Your task to perform on an android device: turn off location history Image 0: 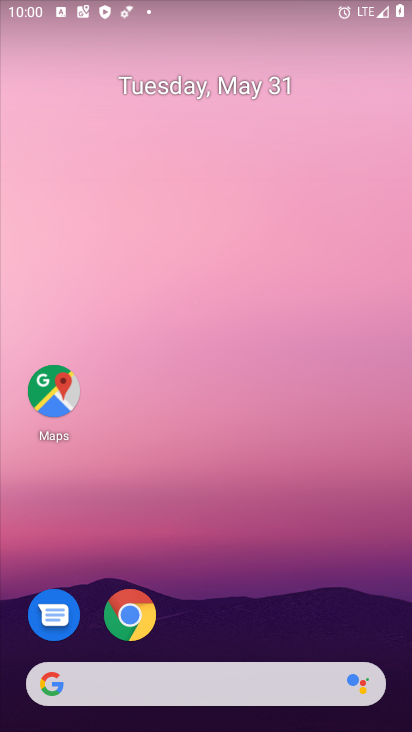
Step 0: click (52, 395)
Your task to perform on an android device: turn off location history Image 1: 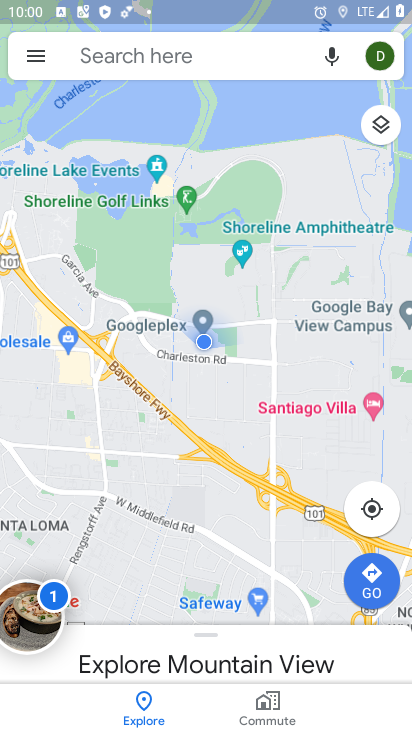
Step 1: click (33, 56)
Your task to perform on an android device: turn off location history Image 2: 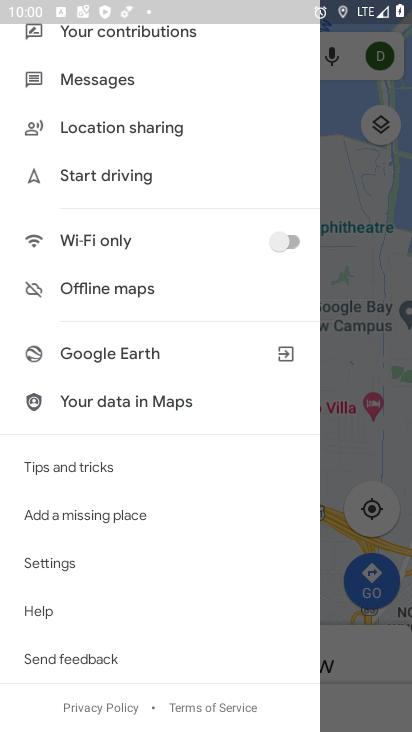
Step 2: click (48, 555)
Your task to perform on an android device: turn off location history Image 3: 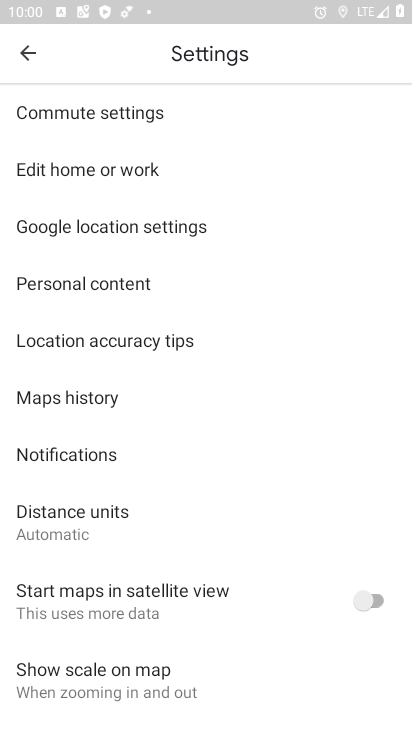
Step 3: click (87, 282)
Your task to perform on an android device: turn off location history Image 4: 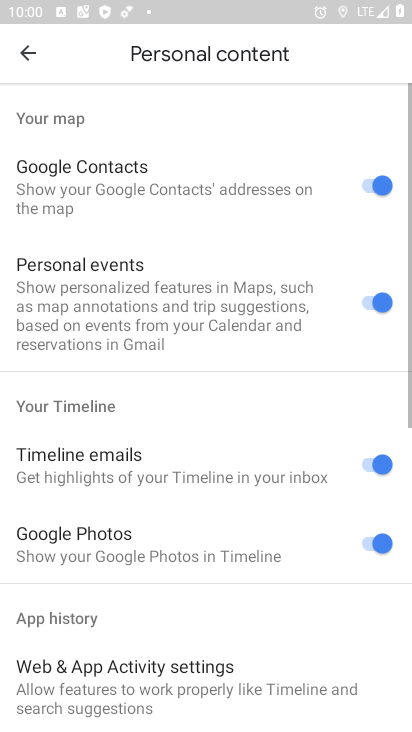
Step 4: task complete